Your task to perform on an android device: Go to privacy settings Image 0: 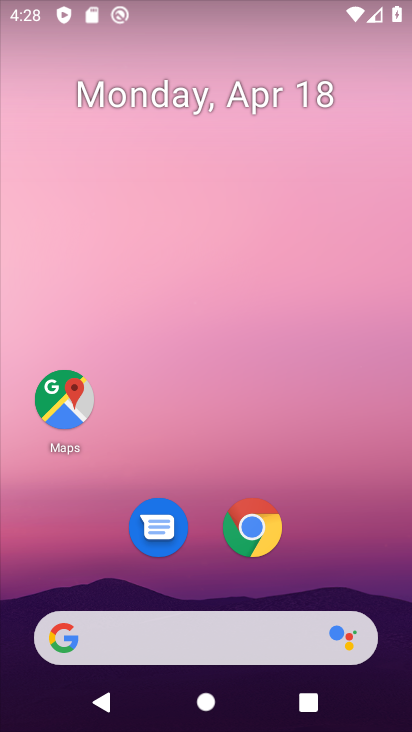
Step 0: drag from (208, 576) to (236, 2)
Your task to perform on an android device: Go to privacy settings Image 1: 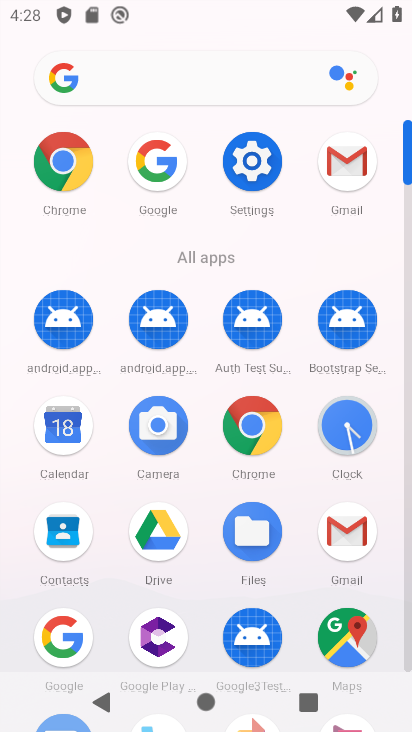
Step 1: click (250, 156)
Your task to perform on an android device: Go to privacy settings Image 2: 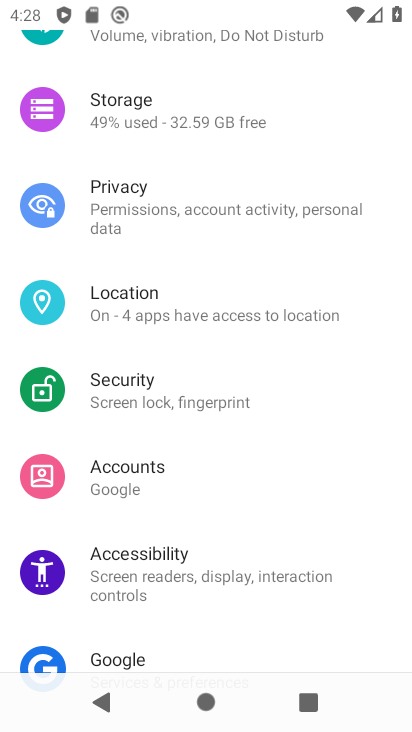
Step 2: click (178, 190)
Your task to perform on an android device: Go to privacy settings Image 3: 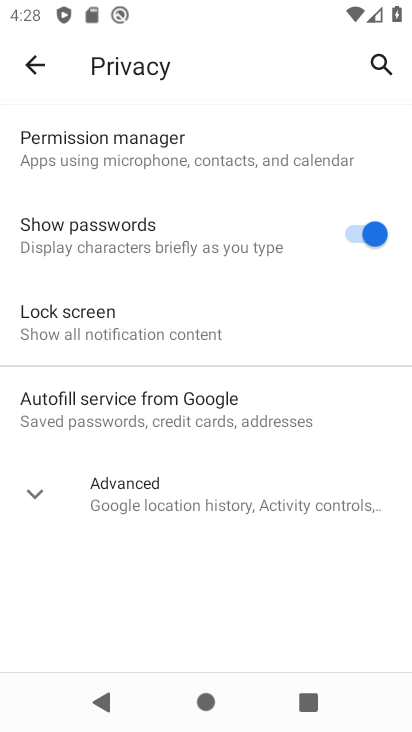
Step 3: task complete